Your task to perform on an android device: Open Android settings Image 0: 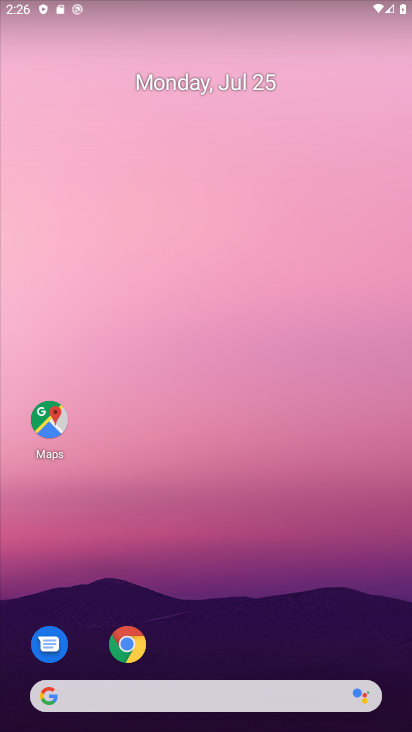
Step 0: drag from (248, 699) to (299, 111)
Your task to perform on an android device: Open Android settings Image 1: 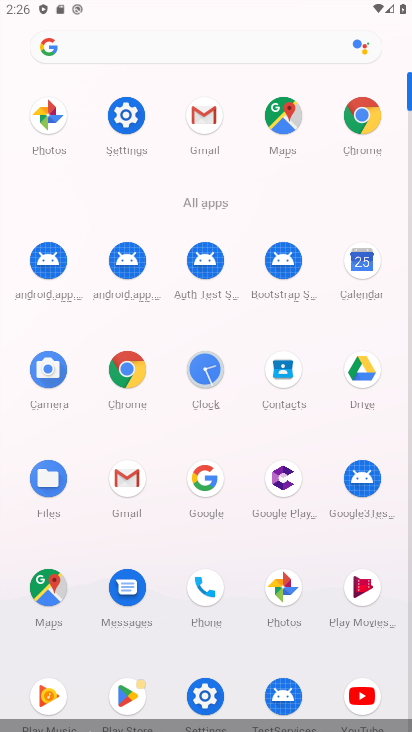
Step 1: click (204, 678)
Your task to perform on an android device: Open Android settings Image 2: 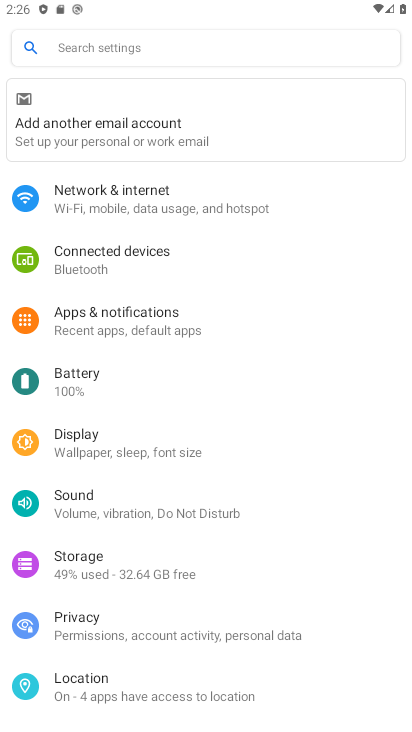
Step 2: task complete